Your task to perform on an android device: Go to Google maps Image 0: 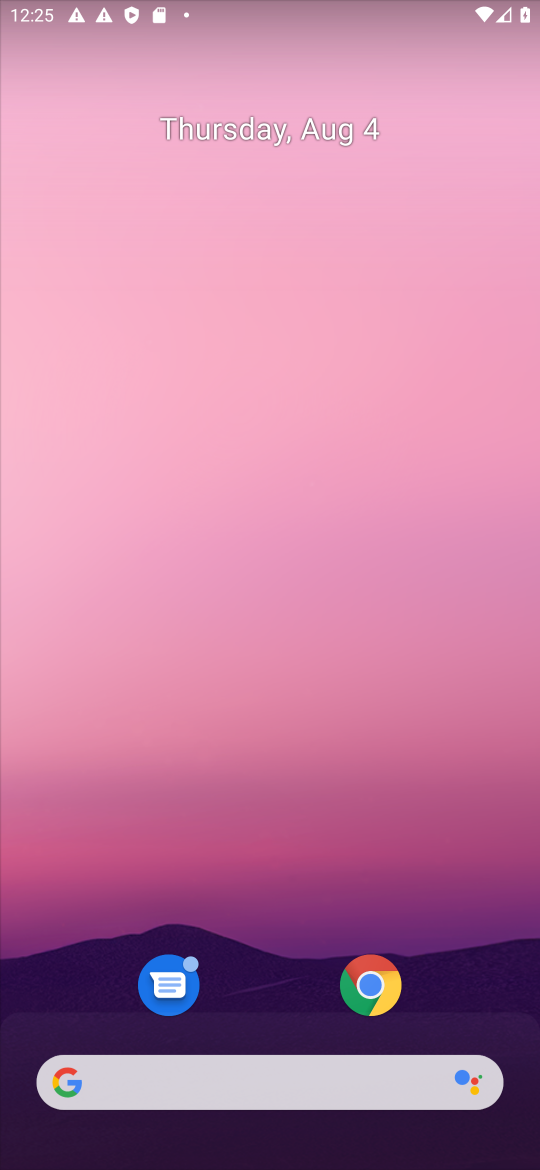
Step 0: drag from (283, 989) to (426, 11)
Your task to perform on an android device: Go to Google maps Image 1: 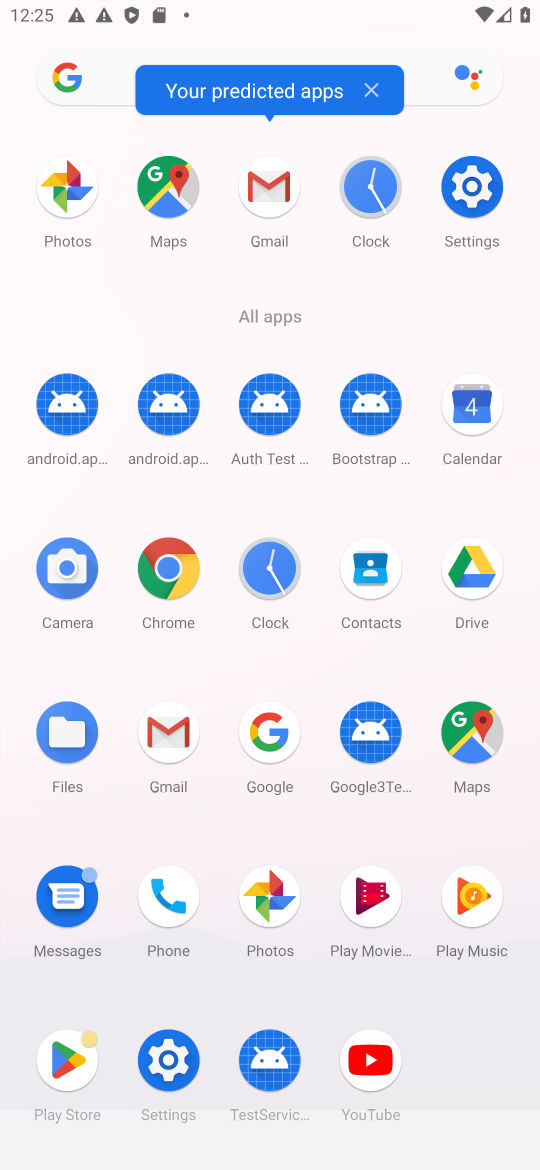
Step 1: click (151, 182)
Your task to perform on an android device: Go to Google maps Image 2: 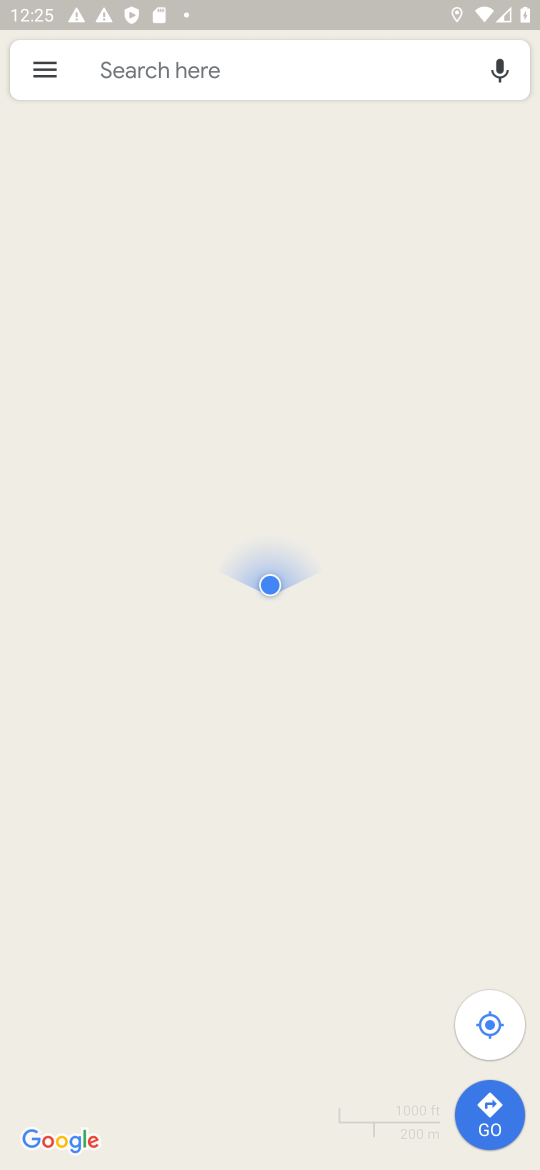
Step 2: task complete